Your task to perform on an android device: Open battery settings Image 0: 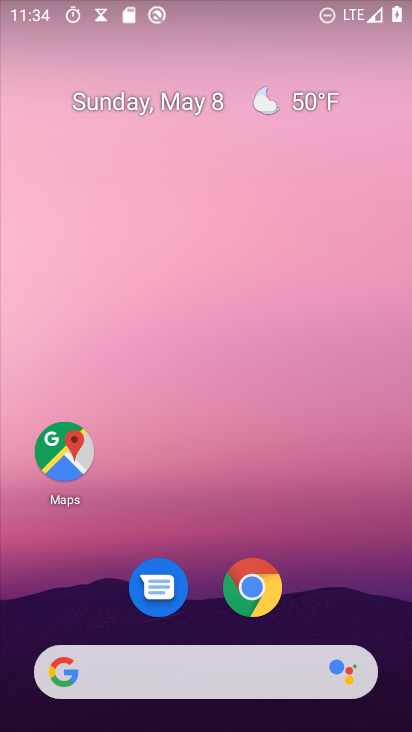
Step 0: drag from (343, 617) to (93, 109)
Your task to perform on an android device: Open battery settings Image 1: 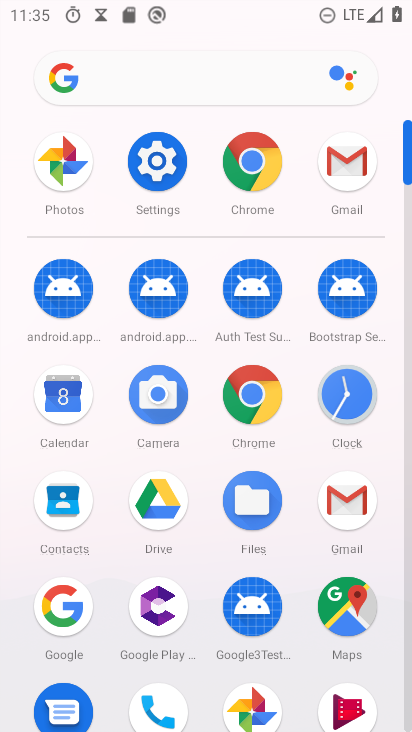
Step 1: click (149, 161)
Your task to perform on an android device: Open battery settings Image 2: 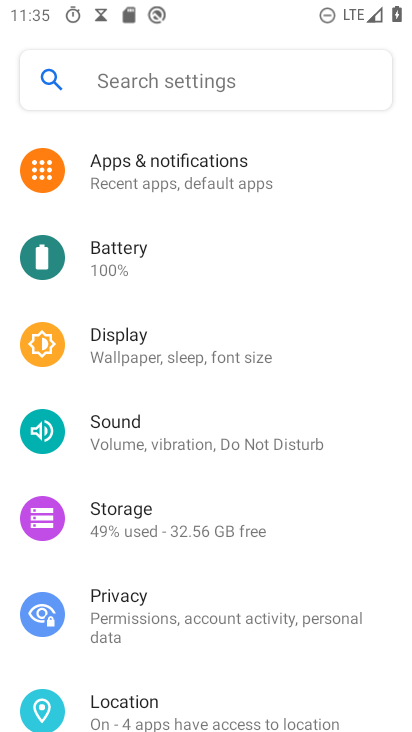
Step 2: click (129, 255)
Your task to perform on an android device: Open battery settings Image 3: 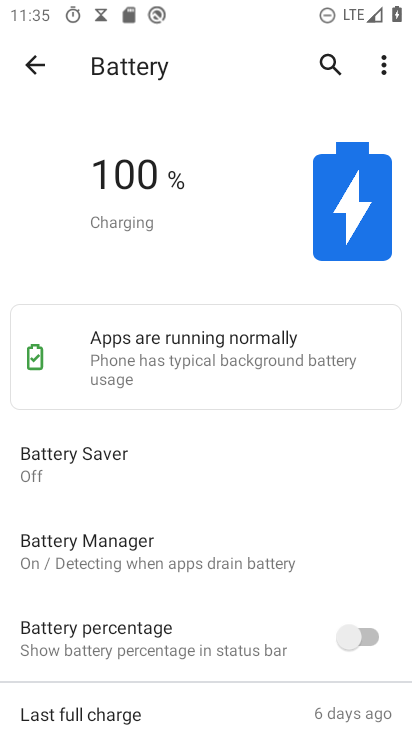
Step 3: task complete